Your task to perform on an android device: Go to network settings Image 0: 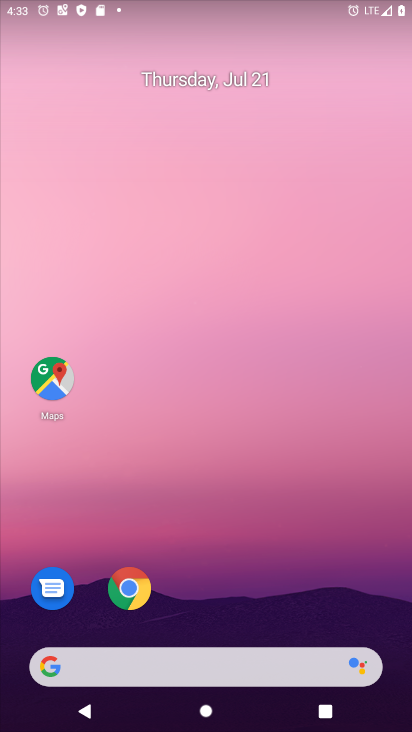
Step 0: drag from (273, 564) to (310, 28)
Your task to perform on an android device: Go to network settings Image 1: 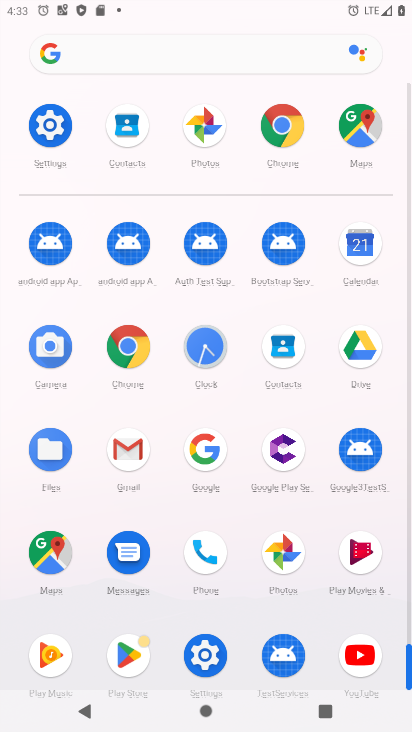
Step 1: click (218, 651)
Your task to perform on an android device: Go to network settings Image 2: 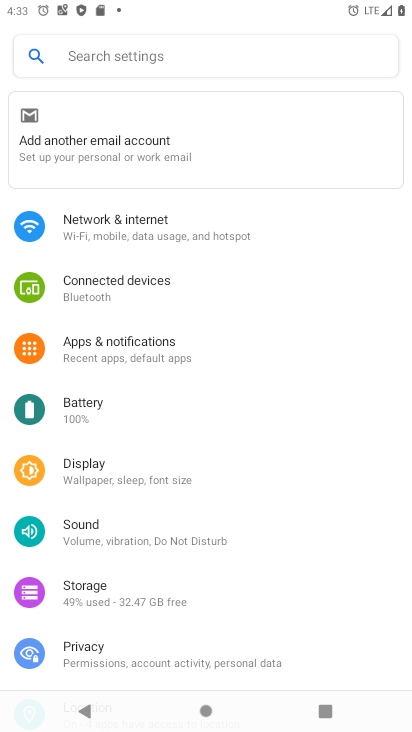
Step 2: click (134, 217)
Your task to perform on an android device: Go to network settings Image 3: 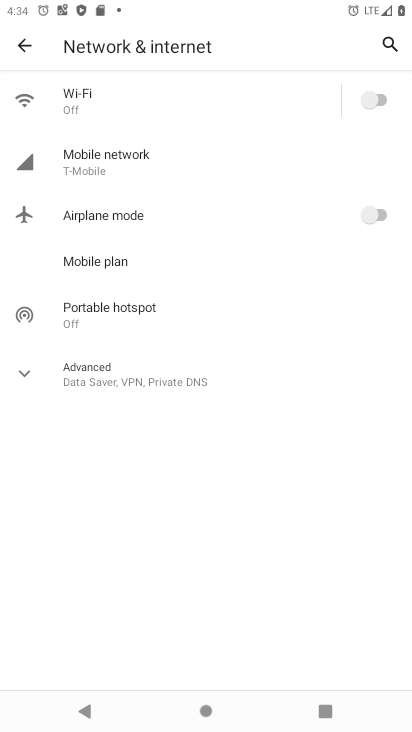
Step 3: task complete